Your task to perform on an android device: snooze an email in the gmail app Image 0: 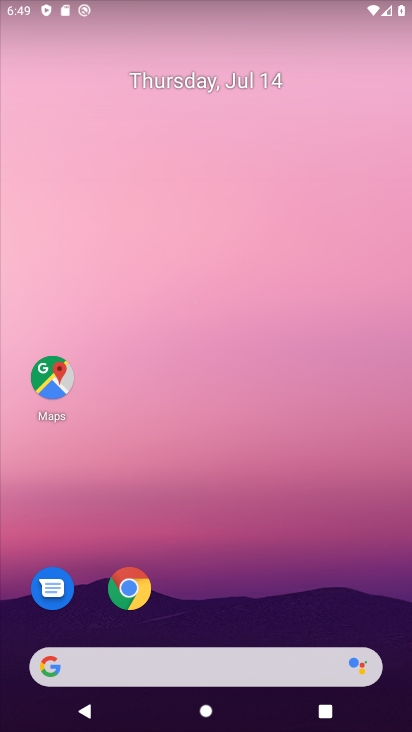
Step 0: drag from (395, 640) to (280, 82)
Your task to perform on an android device: snooze an email in the gmail app Image 1: 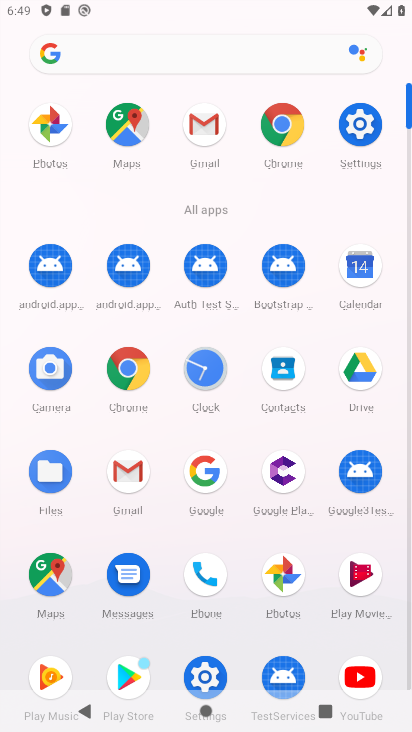
Step 1: click (114, 487)
Your task to perform on an android device: snooze an email in the gmail app Image 2: 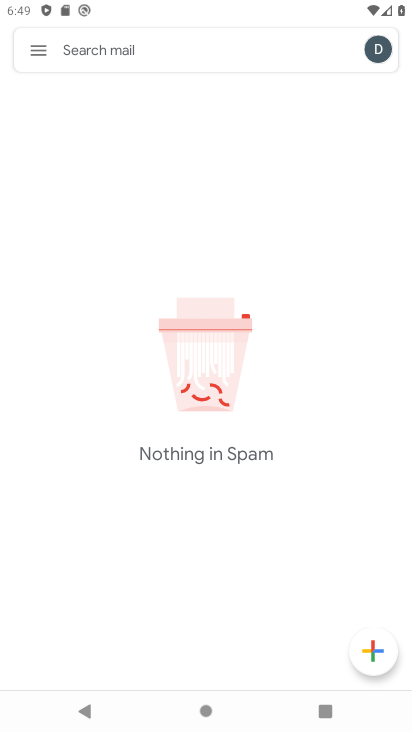
Step 2: click (41, 40)
Your task to perform on an android device: snooze an email in the gmail app Image 3: 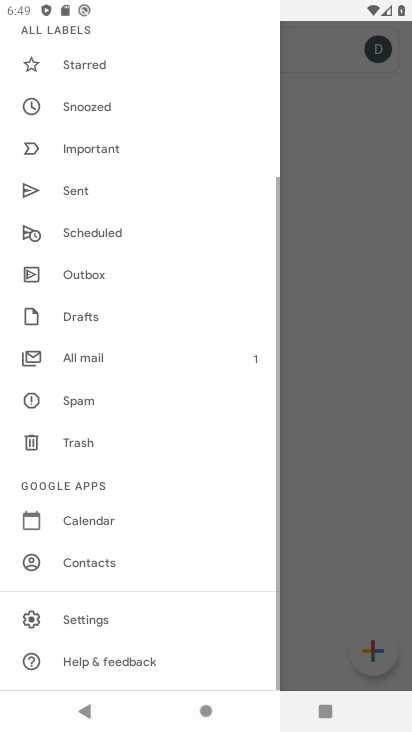
Step 3: drag from (55, 80) to (40, 689)
Your task to perform on an android device: snooze an email in the gmail app Image 4: 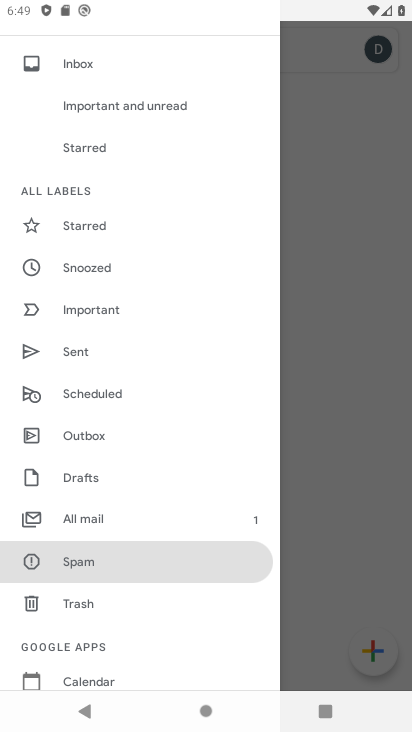
Step 4: click (99, 74)
Your task to perform on an android device: snooze an email in the gmail app Image 5: 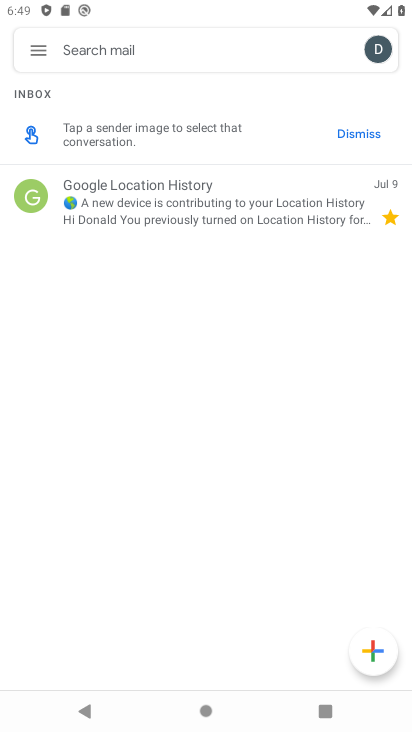
Step 5: click (175, 215)
Your task to perform on an android device: snooze an email in the gmail app Image 6: 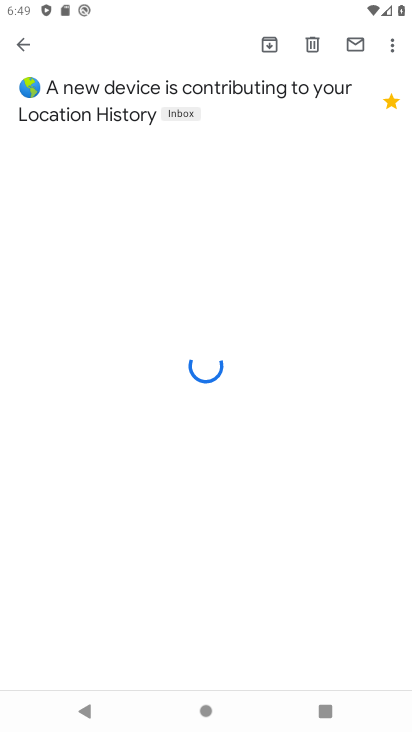
Step 6: click (393, 39)
Your task to perform on an android device: snooze an email in the gmail app Image 7: 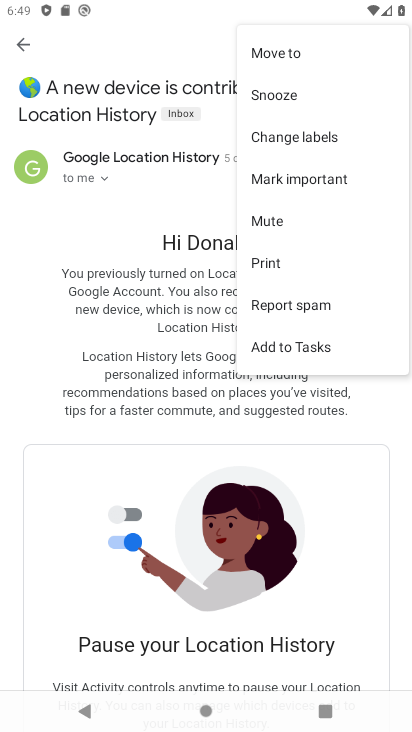
Step 7: click (273, 95)
Your task to perform on an android device: snooze an email in the gmail app Image 8: 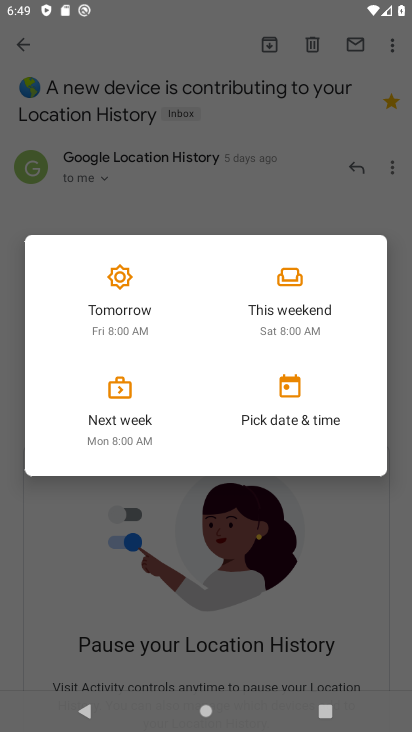
Step 8: click (116, 303)
Your task to perform on an android device: snooze an email in the gmail app Image 9: 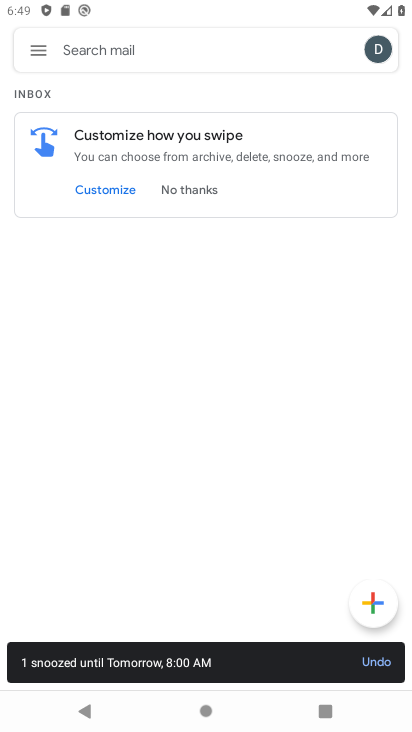
Step 9: task complete